Your task to perform on an android device: Open internet settings Image 0: 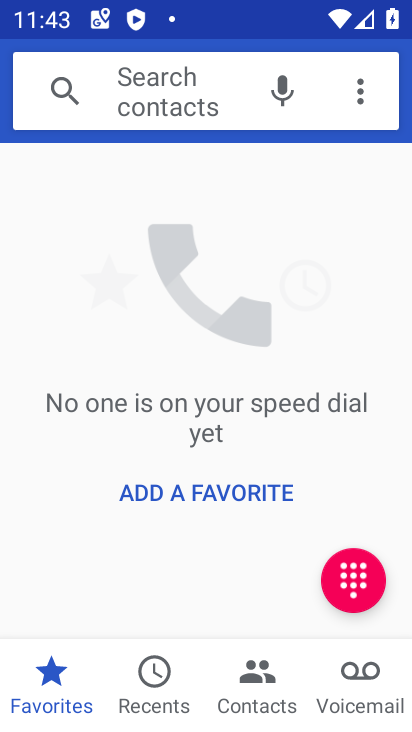
Step 0: press home button
Your task to perform on an android device: Open internet settings Image 1: 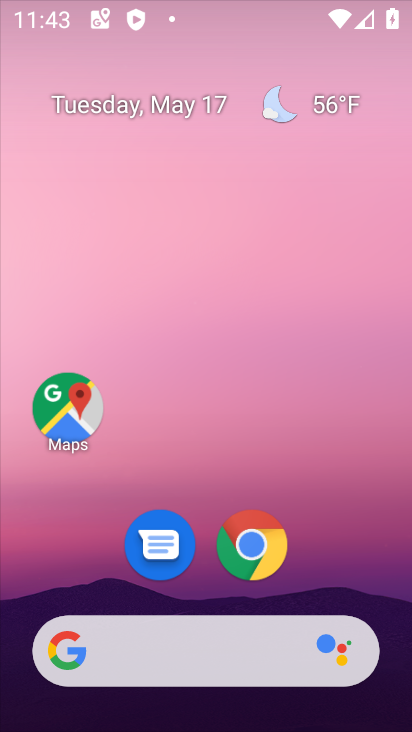
Step 1: drag from (206, 669) to (390, 3)
Your task to perform on an android device: Open internet settings Image 2: 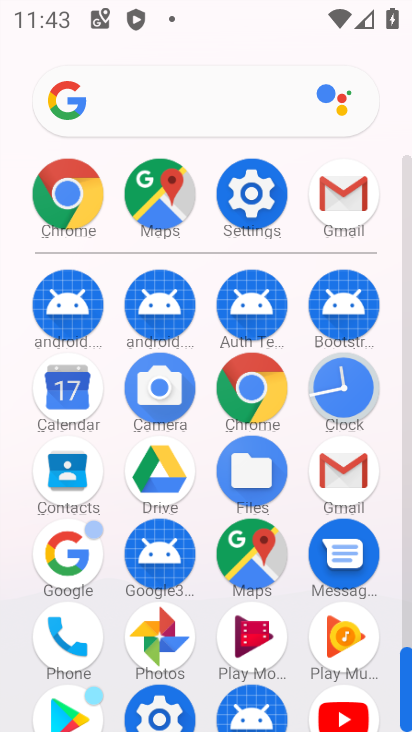
Step 2: click (281, 191)
Your task to perform on an android device: Open internet settings Image 3: 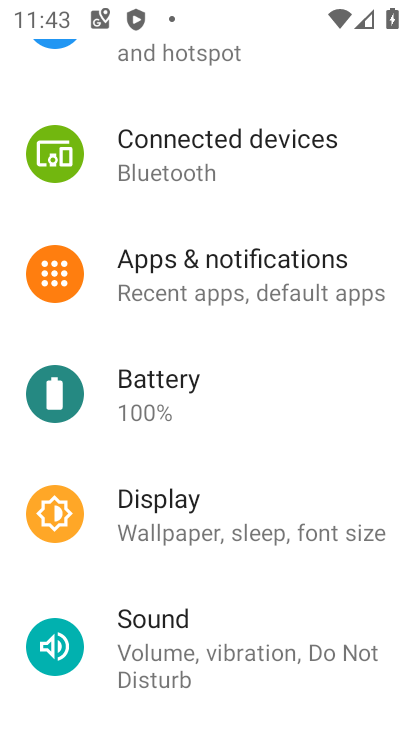
Step 3: drag from (219, 374) to (172, 632)
Your task to perform on an android device: Open internet settings Image 4: 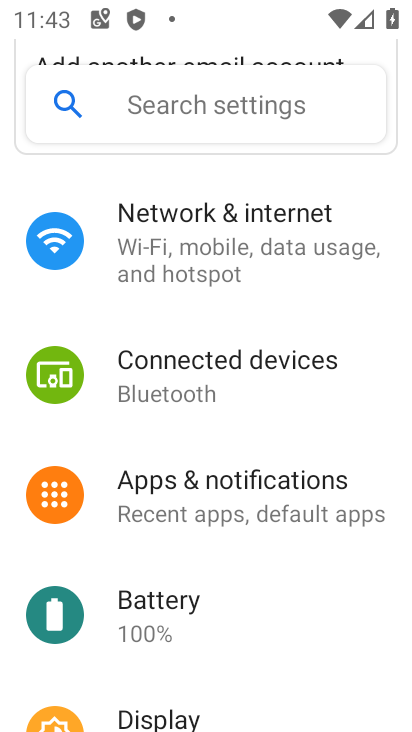
Step 4: click (252, 242)
Your task to perform on an android device: Open internet settings Image 5: 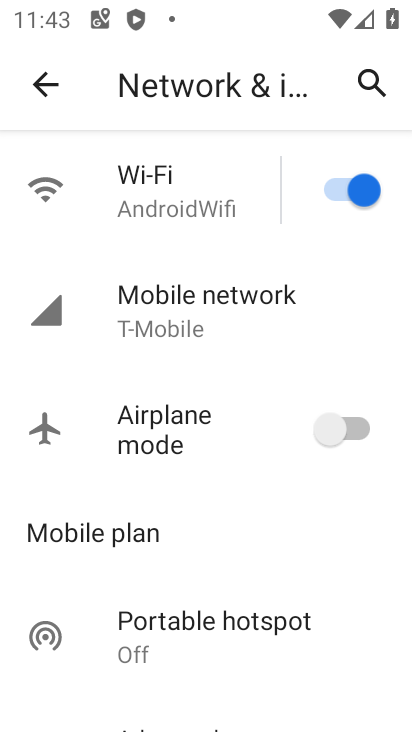
Step 5: click (227, 315)
Your task to perform on an android device: Open internet settings Image 6: 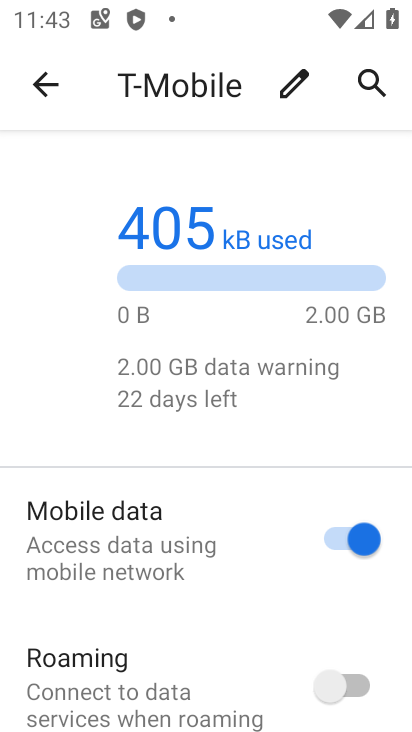
Step 6: task complete